Your task to perform on an android device: Search for sushi restaurants on Maps Image 0: 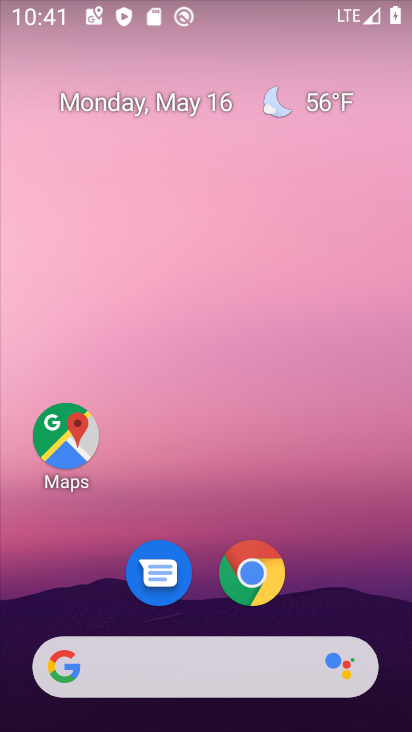
Step 0: click (44, 413)
Your task to perform on an android device: Search for sushi restaurants on Maps Image 1: 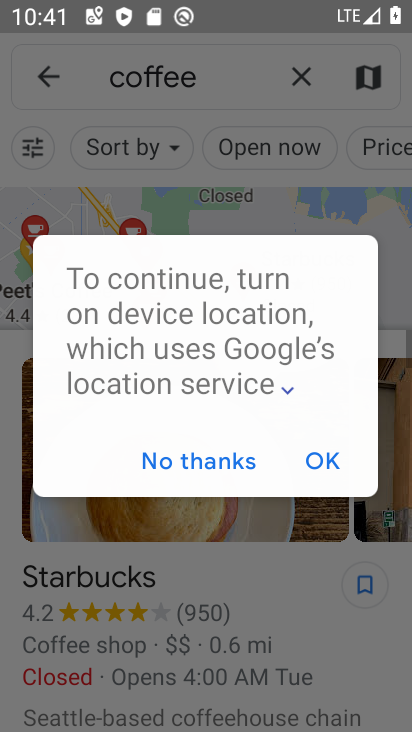
Step 1: click (291, 79)
Your task to perform on an android device: Search for sushi restaurants on Maps Image 2: 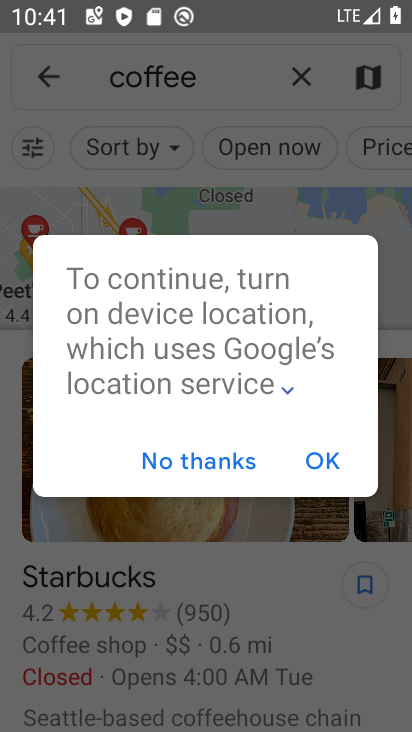
Step 2: click (199, 457)
Your task to perform on an android device: Search for sushi restaurants on Maps Image 3: 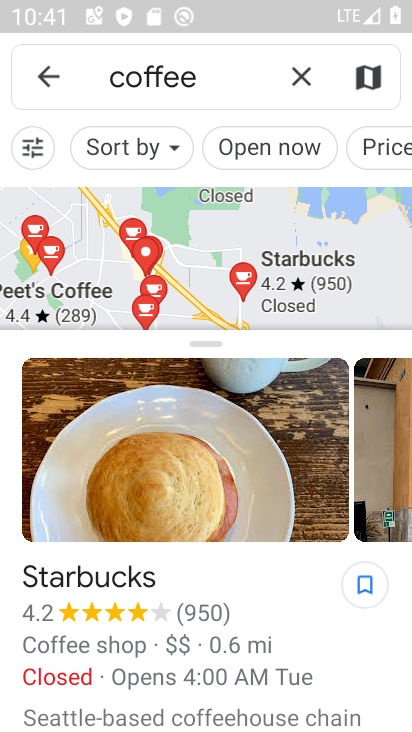
Step 3: click (305, 77)
Your task to perform on an android device: Search for sushi restaurants on Maps Image 4: 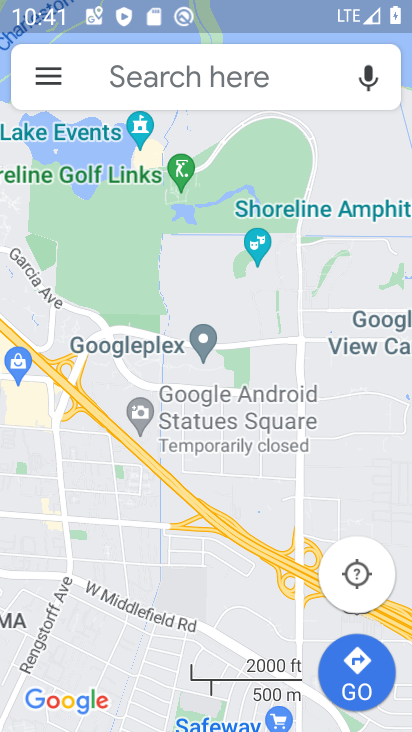
Step 4: click (221, 71)
Your task to perform on an android device: Search for sushi restaurants on Maps Image 5: 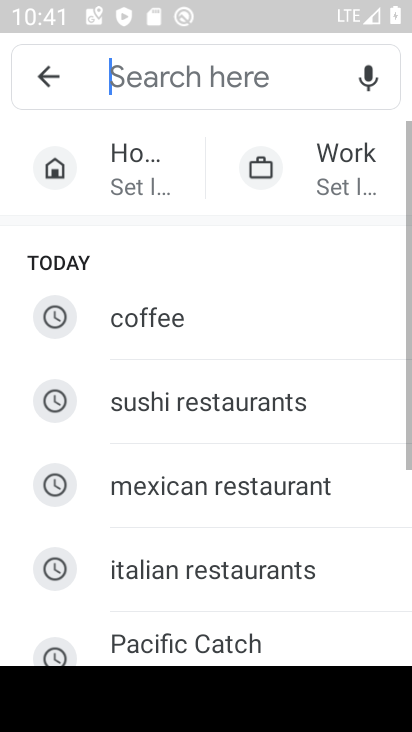
Step 5: click (199, 401)
Your task to perform on an android device: Search for sushi restaurants on Maps Image 6: 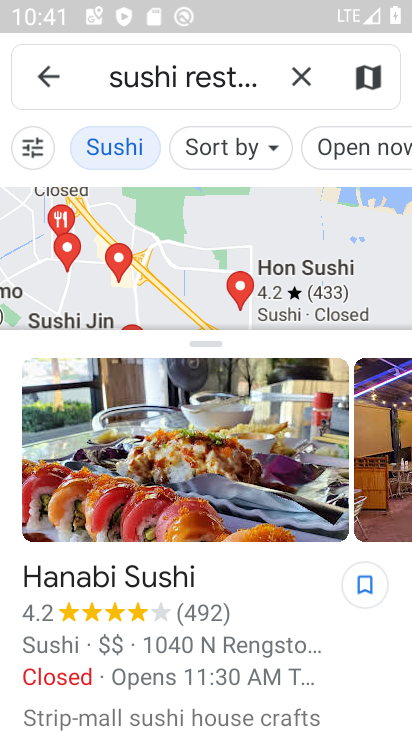
Step 6: task complete